Your task to perform on an android device: Open Reddit.com Image 0: 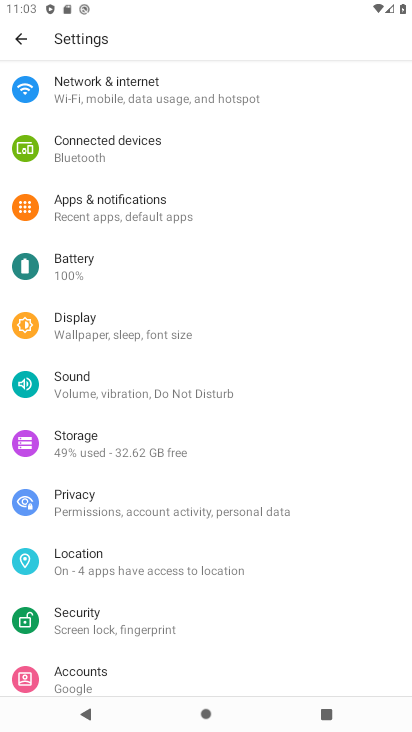
Step 0: press home button
Your task to perform on an android device: Open Reddit.com Image 1: 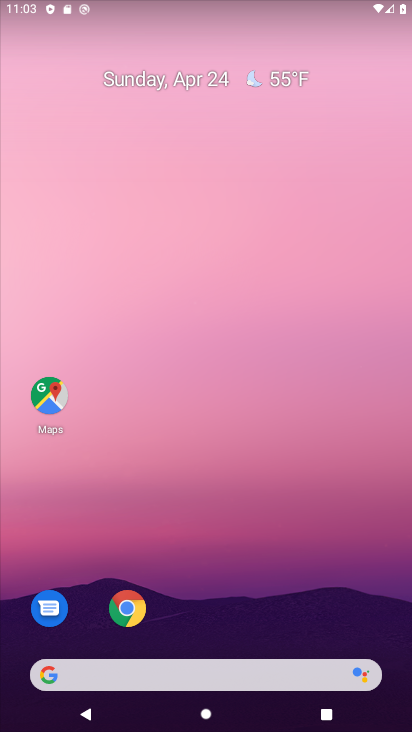
Step 1: click (129, 610)
Your task to perform on an android device: Open Reddit.com Image 2: 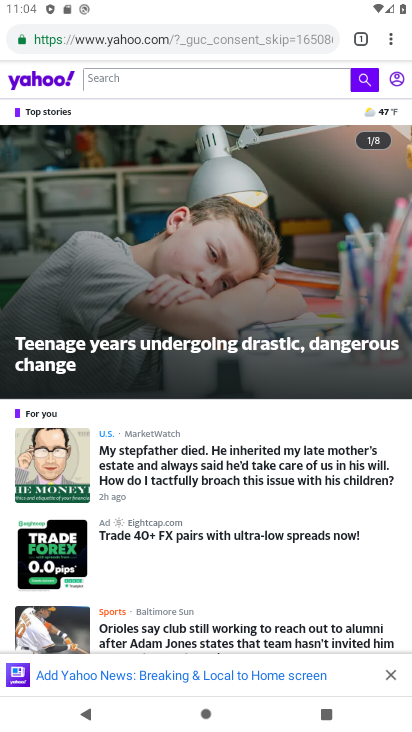
Step 2: drag from (388, 36) to (276, 80)
Your task to perform on an android device: Open Reddit.com Image 3: 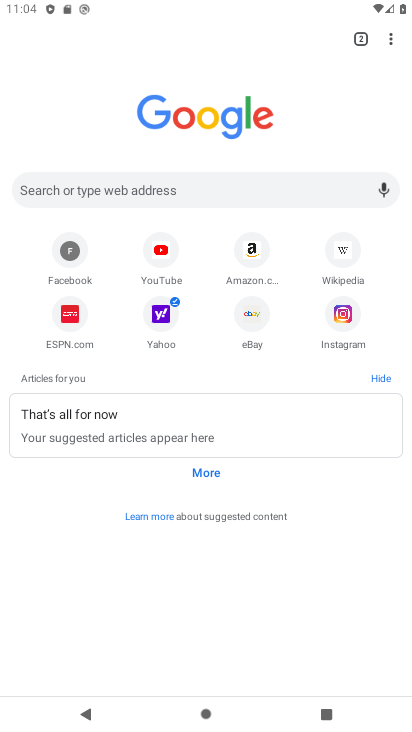
Step 3: click (97, 193)
Your task to perform on an android device: Open Reddit.com Image 4: 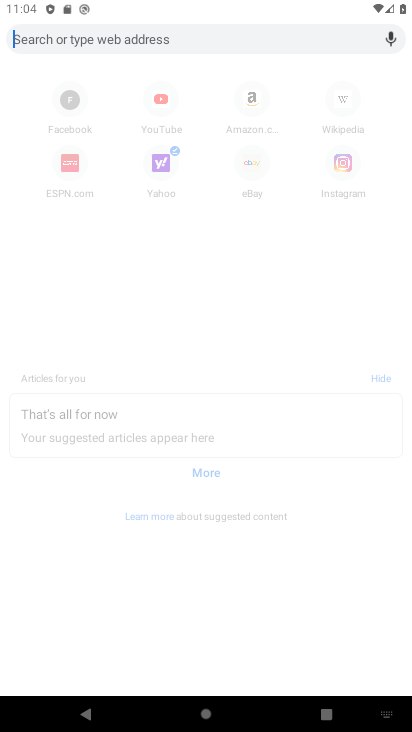
Step 4: type "reddit.com"
Your task to perform on an android device: Open Reddit.com Image 5: 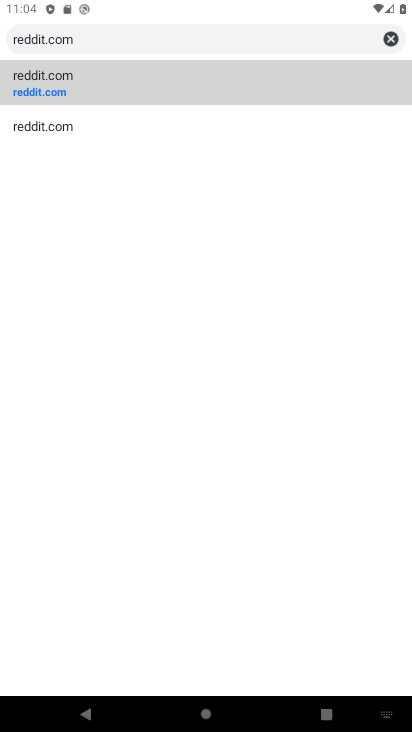
Step 5: click (74, 129)
Your task to perform on an android device: Open Reddit.com Image 6: 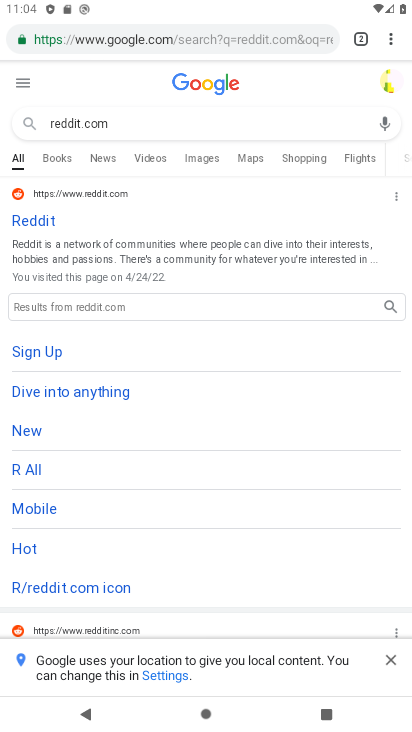
Step 6: click (35, 224)
Your task to perform on an android device: Open Reddit.com Image 7: 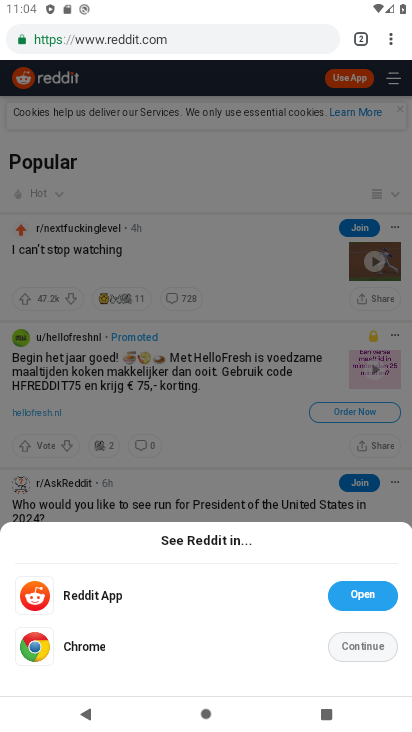
Step 7: task complete